Your task to perform on an android device: open a new tab in the chrome app Image 0: 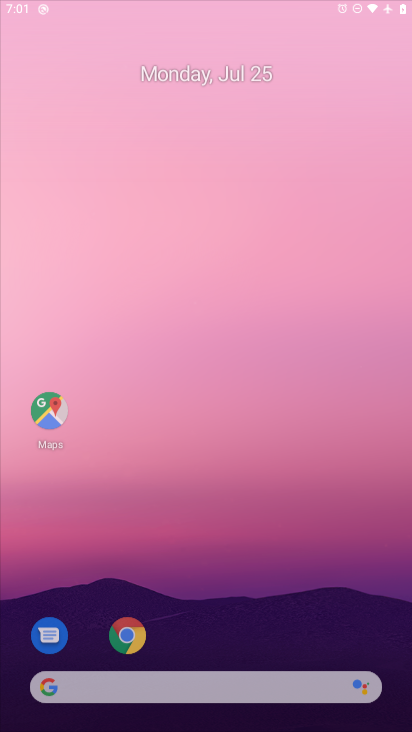
Step 0: press home button
Your task to perform on an android device: open a new tab in the chrome app Image 1: 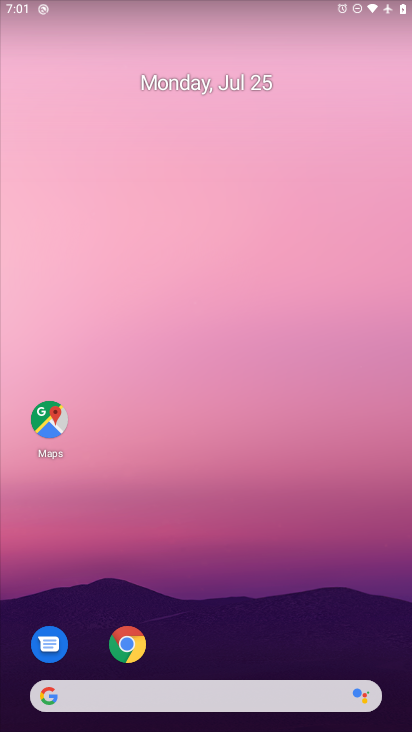
Step 1: drag from (257, 649) to (345, 194)
Your task to perform on an android device: open a new tab in the chrome app Image 2: 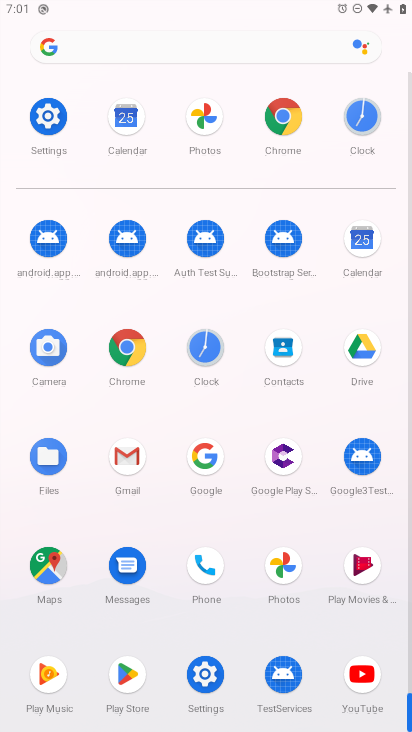
Step 2: click (282, 113)
Your task to perform on an android device: open a new tab in the chrome app Image 3: 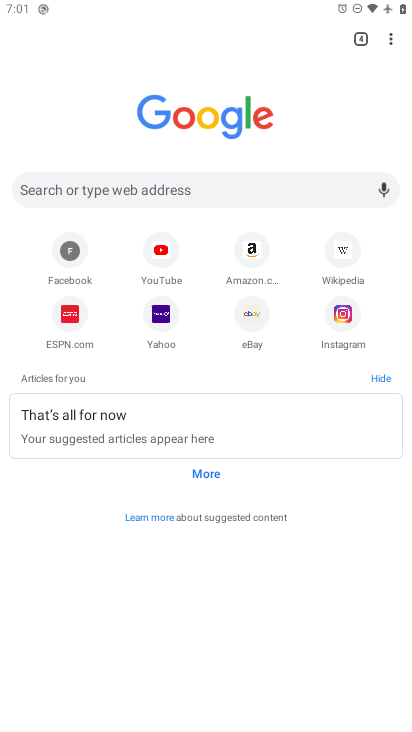
Step 3: click (356, 40)
Your task to perform on an android device: open a new tab in the chrome app Image 4: 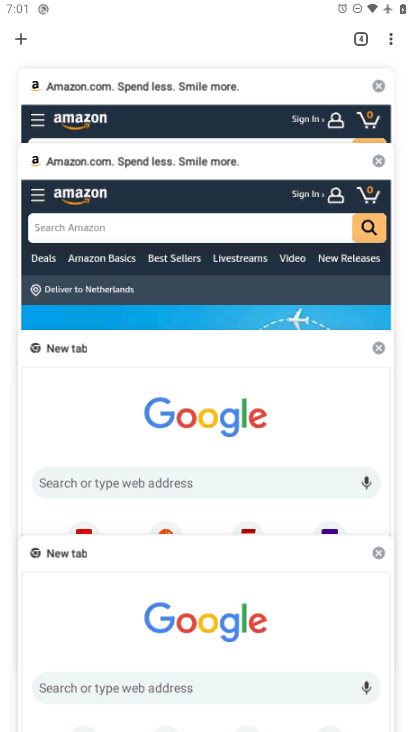
Step 4: click (21, 36)
Your task to perform on an android device: open a new tab in the chrome app Image 5: 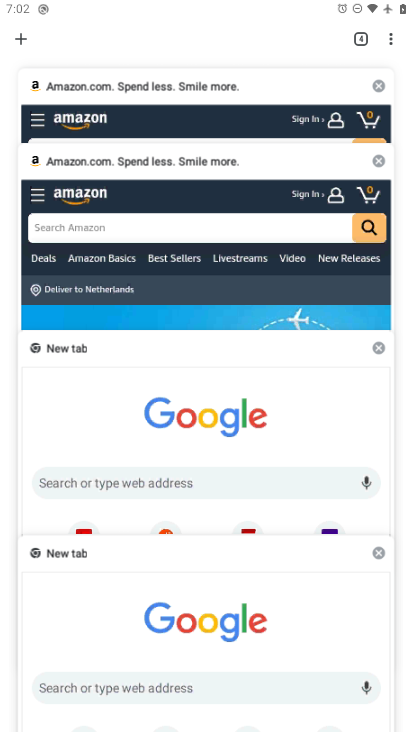
Step 5: click (22, 36)
Your task to perform on an android device: open a new tab in the chrome app Image 6: 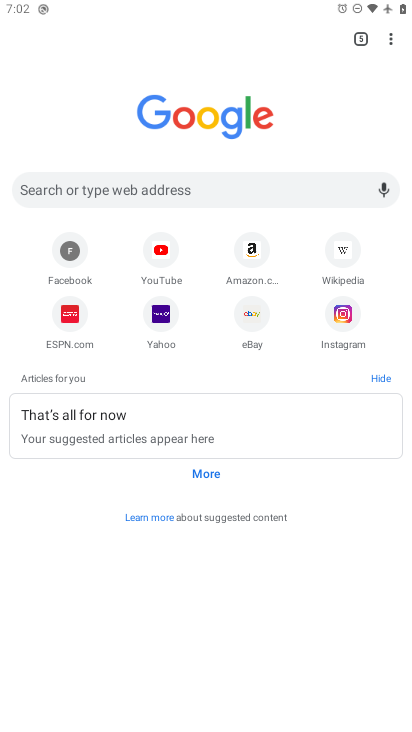
Step 6: task complete